Your task to perform on an android device: toggle javascript in the chrome app Image 0: 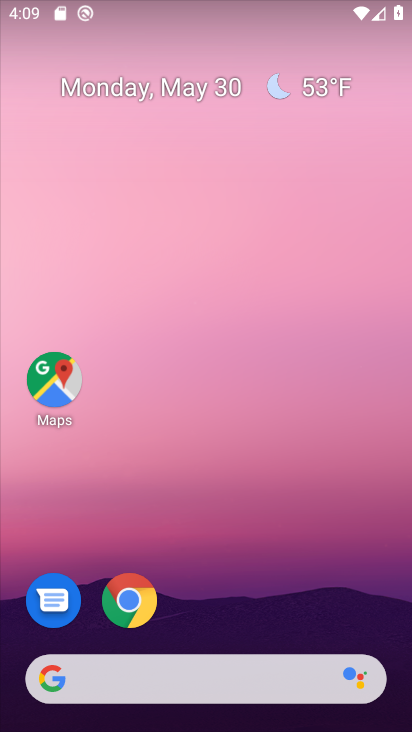
Step 0: drag from (307, 441) to (34, 286)
Your task to perform on an android device: toggle javascript in the chrome app Image 1: 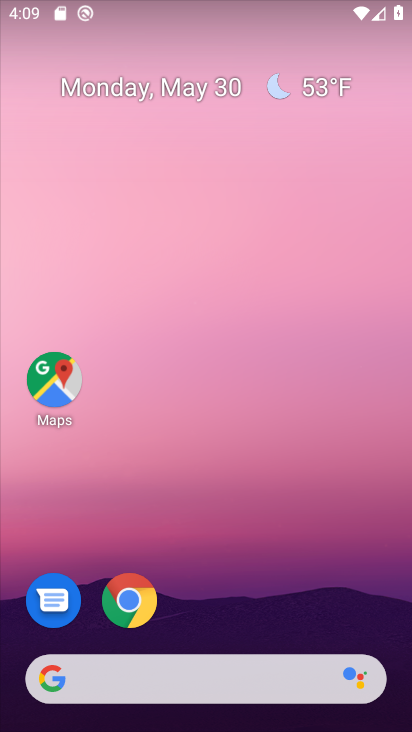
Step 1: drag from (348, 554) to (325, 32)
Your task to perform on an android device: toggle javascript in the chrome app Image 2: 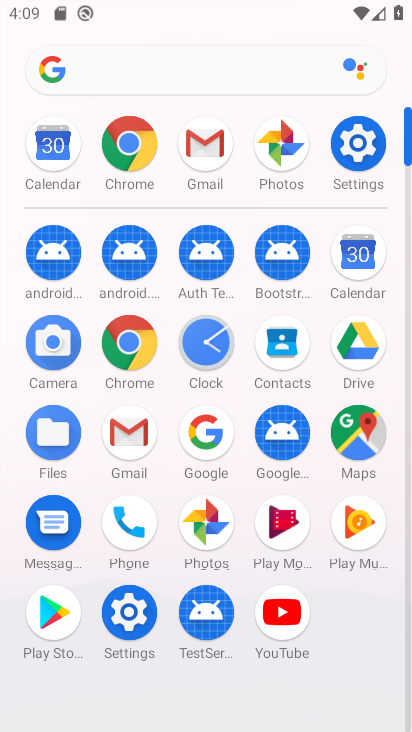
Step 2: click (117, 150)
Your task to perform on an android device: toggle javascript in the chrome app Image 3: 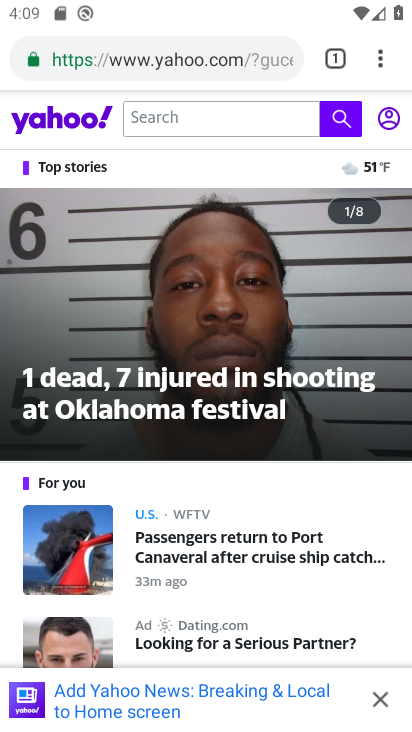
Step 3: drag from (372, 68) to (221, 641)
Your task to perform on an android device: toggle javascript in the chrome app Image 4: 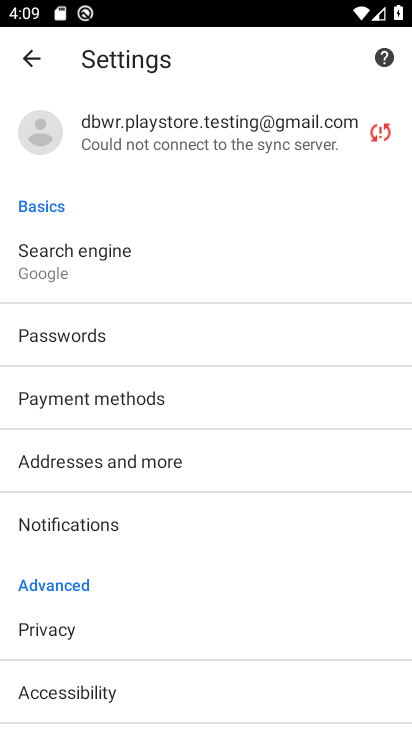
Step 4: drag from (206, 607) to (280, 159)
Your task to perform on an android device: toggle javascript in the chrome app Image 5: 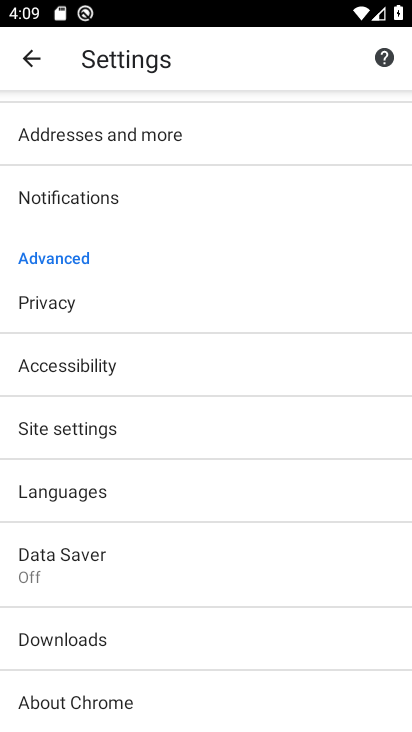
Step 5: click (95, 435)
Your task to perform on an android device: toggle javascript in the chrome app Image 6: 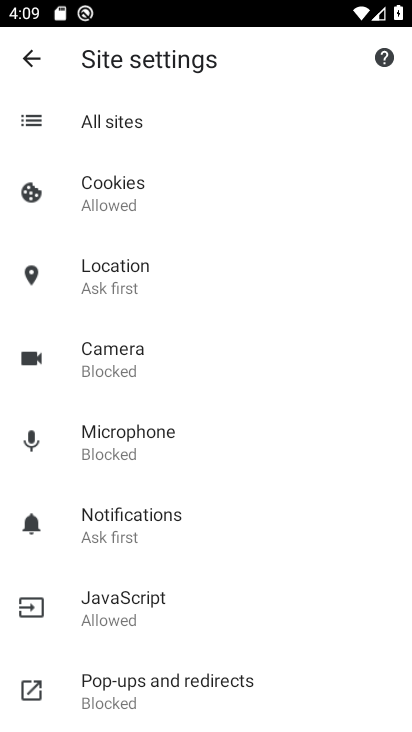
Step 6: click (131, 611)
Your task to perform on an android device: toggle javascript in the chrome app Image 7: 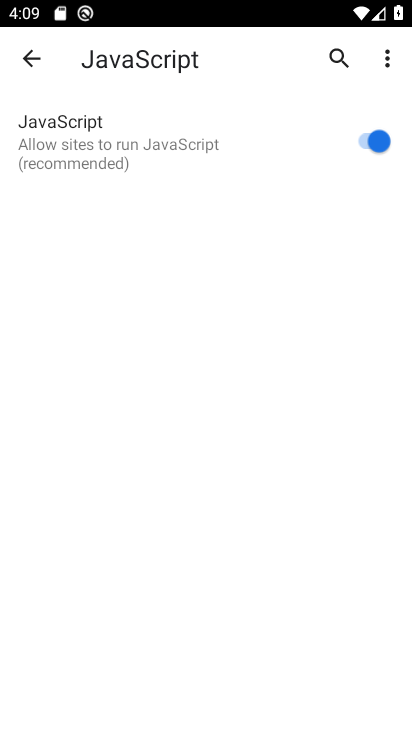
Step 7: click (385, 144)
Your task to perform on an android device: toggle javascript in the chrome app Image 8: 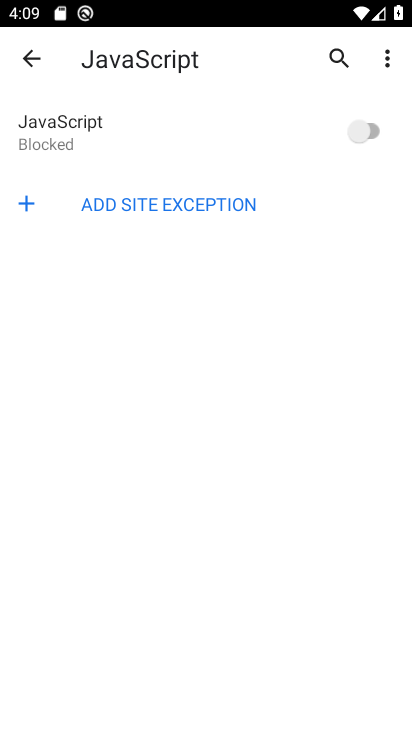
Step 8: task complete